Your task to perform on an android device: Turn on the flashlight Image 0: 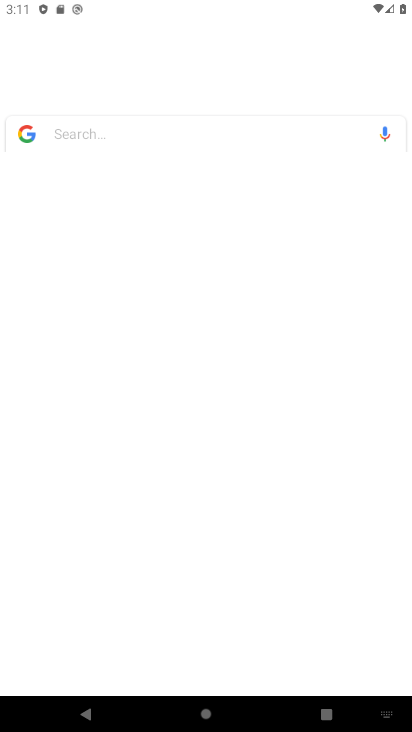
Step 0: drag from (174, 673) to (99, 213)
Your task to perform on an android device: Turn on the flashlight Image 1: 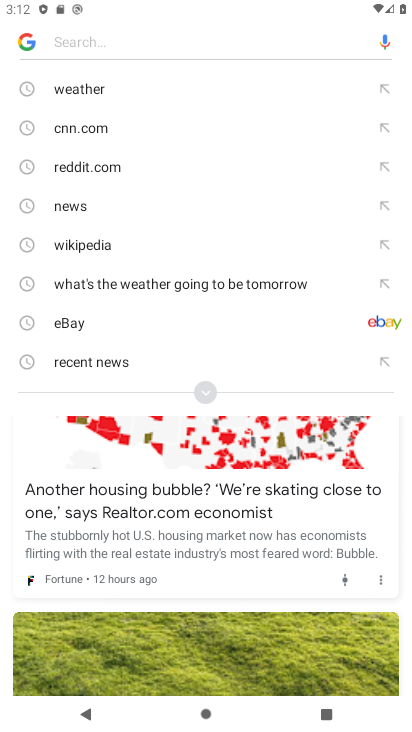
Step 1: task complete